Your task to perform on an android device: turn off improve location accuracy Image 0: 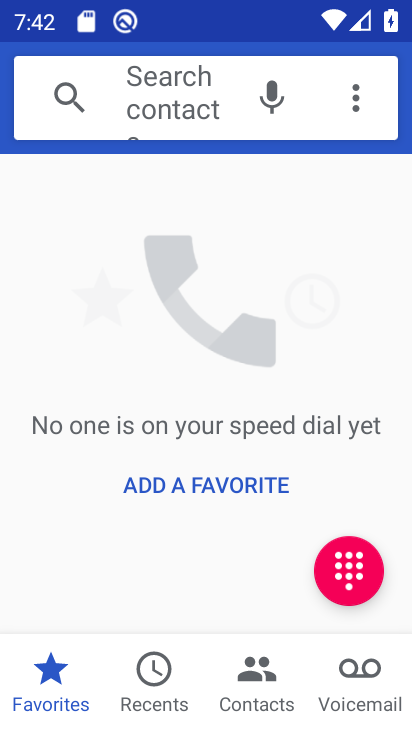
Step 0: press home button
Your task to perform on an android device: turn off improve location accuracy Image 1: 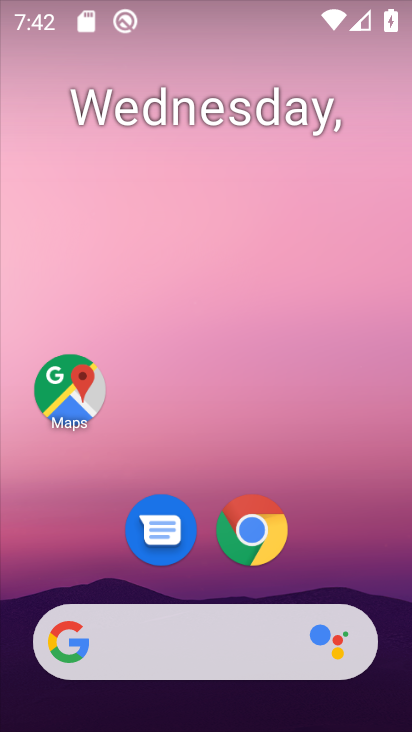
Step 1: drag from (397, 625) to (335, 69)
Your task to perform on an android device: turn off improve location accuracy Image 2: 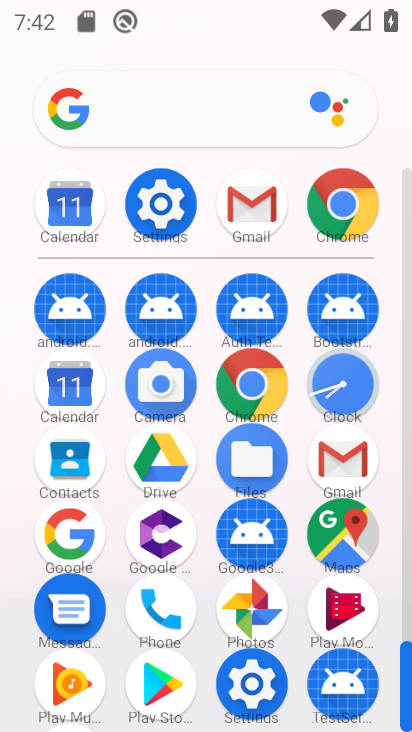
Step 2: click (246, 670)
Your task to perform on an android device: turn off improve location accuracy Image 3: 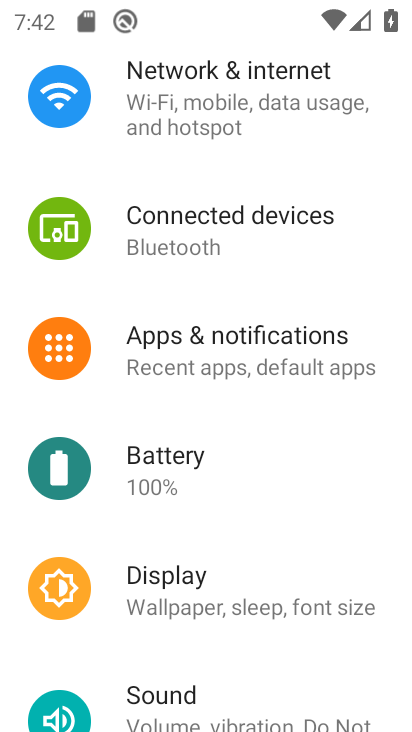
Step 3: drag from (218, 616) to (257, 258)
Your task to perform on an android device: turn off improve location accuracy Image 4: 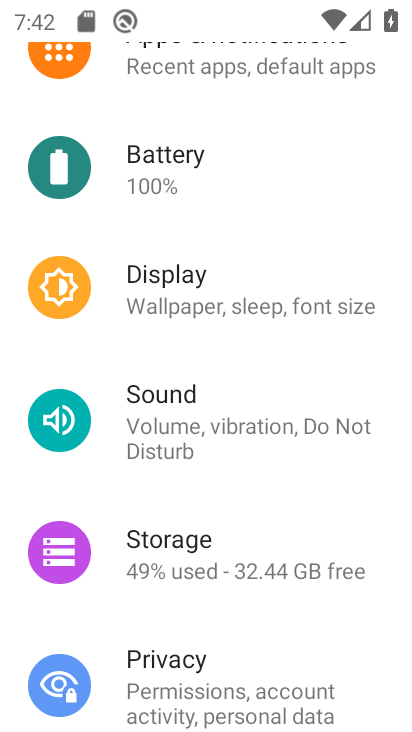
Step 4: drag from (198, 634) to (251, 328)
Your task to perform on an android device: turn off improve location accuracy Image 5: 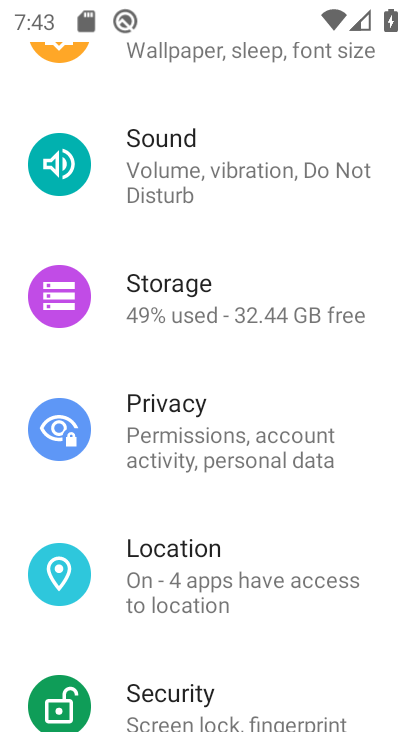
Step 5: click (215, 576)
Your task to perform on an android device: turn off improve location accuracy Image 6: 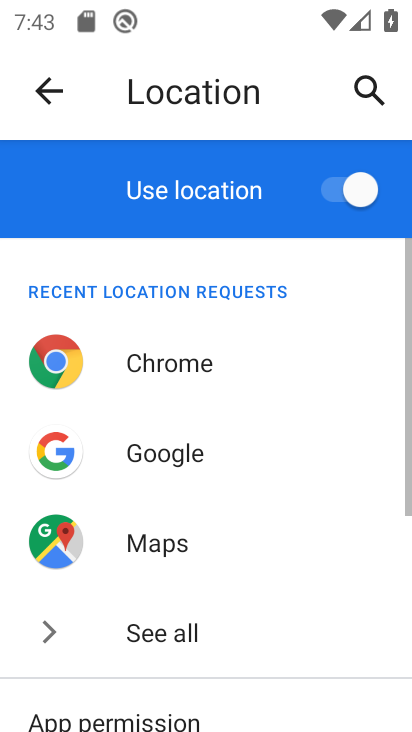
Step 6: drag from (131, 713) to (153, 336)
Your task to perform on an android device: turn off improve location accuracy Image 7: 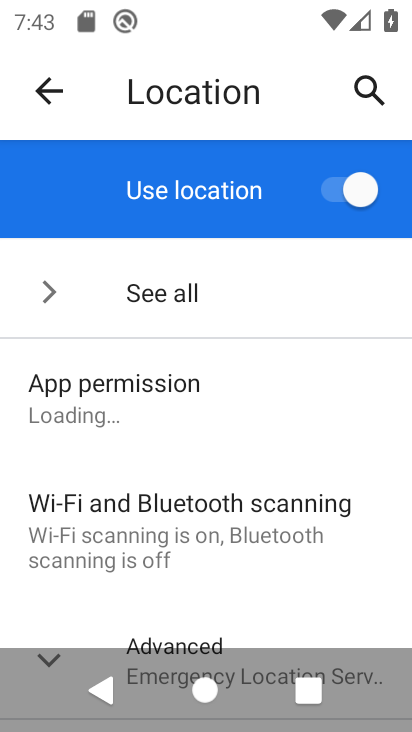
Step 7: click (125, 642)
Your task to perform on an android device: turn off improve location accuracy Image 8: 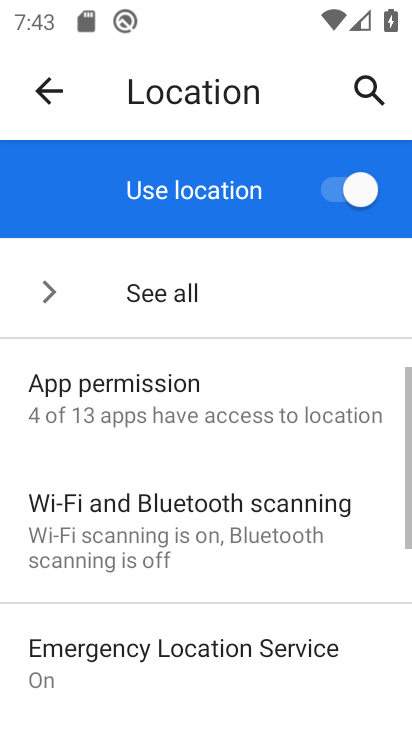
Step 8: drag from (125, 642) to (173, 264)
Your task to perform on an android device: turn off improve location accuracy Image 9: 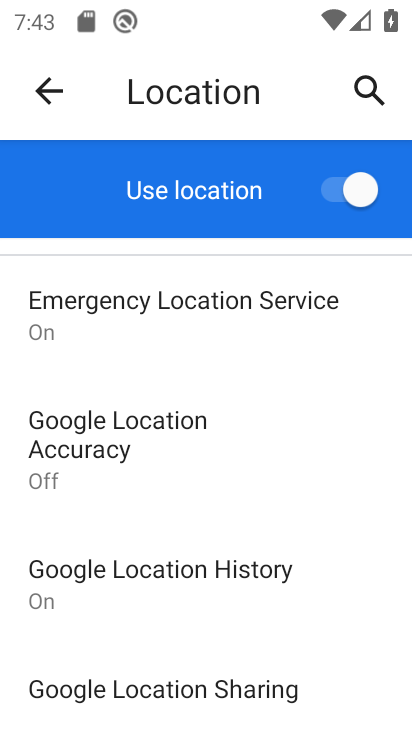
Step 9: click (88, 461)
Your task to perform on an android device: turn off improve location accuracy Image 10: 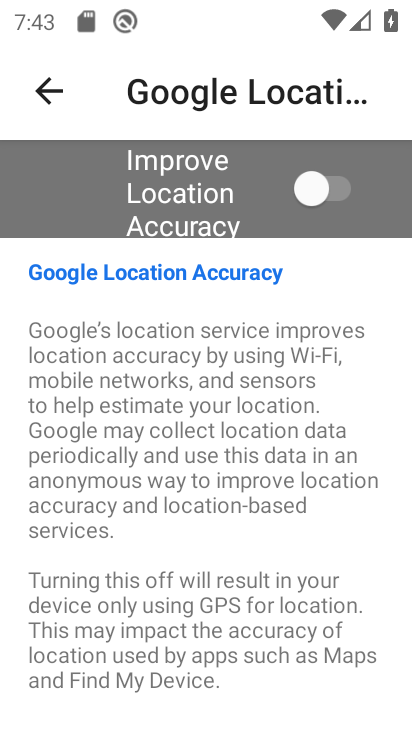
Step 10: task complete